Your task to perform on an android device: search for starred emails in the gmail app Image 0: 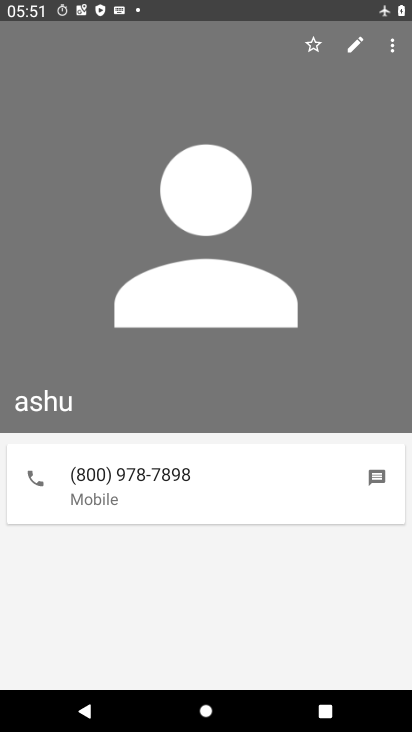
Step 0: press home button
Your task to perform on an android device: search for starred emails in the gmail app Image 1: 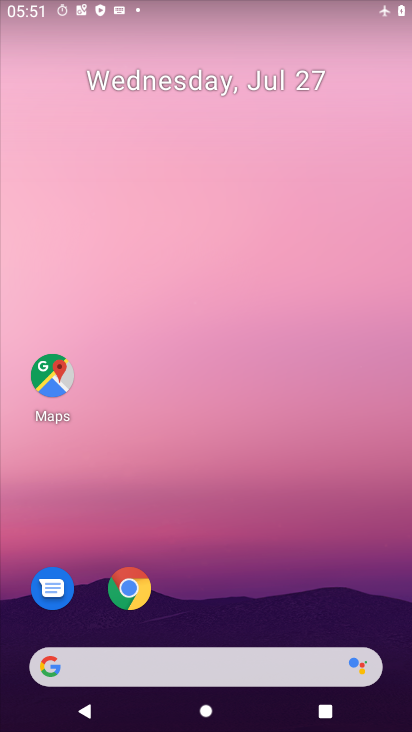
Step 1: drag from (294, 666) to (310, 37)
Your task to perform on an android device: search for starred emails in the gmail app Image 2: 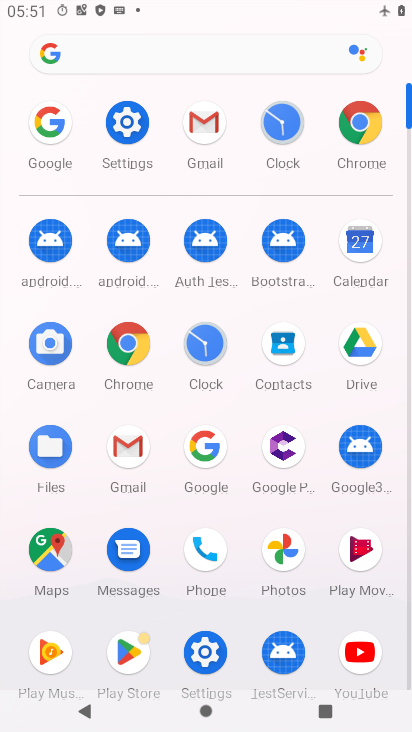
Step 2: click (114, 462)
Your task to perform on an android device: search for starred emails in the gmail app Image 3: 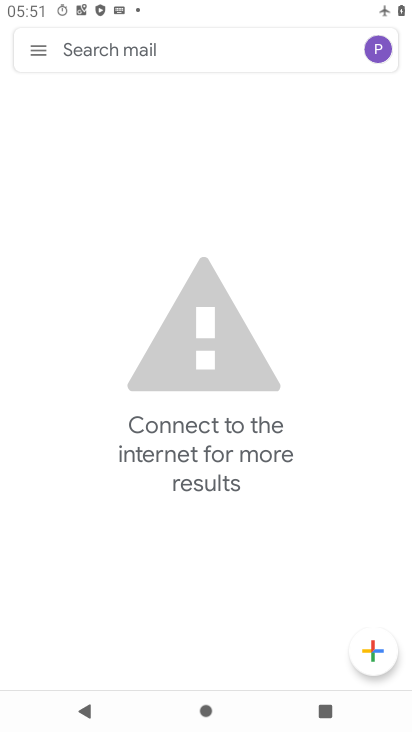
Step 3: click (34, 53)
Your task to perform on an android device: search for starred emails in the gmail app Image 4: 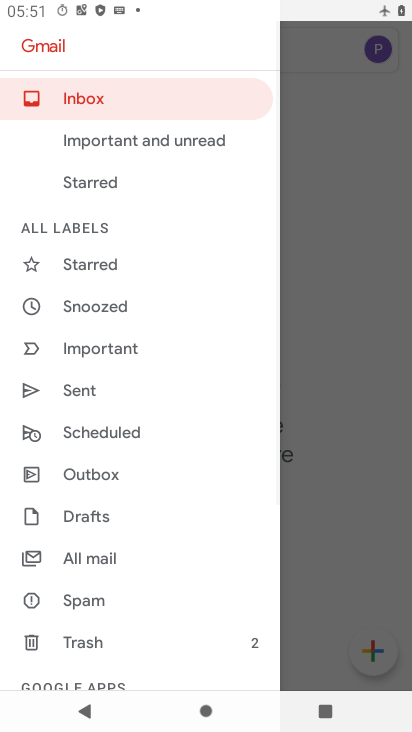
Step 4: click (155, 261)
Your task to perform on an android device: search for starred emails in the gmail app Image 5: 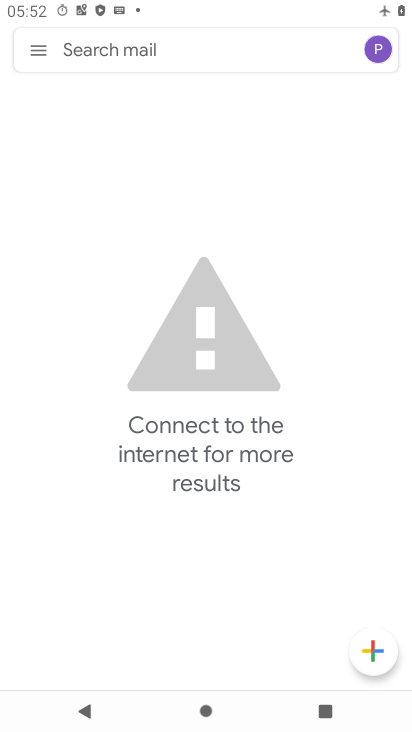
Step 5: task complete